Your task to perform on an android device: change the clock display to digital Image 0: 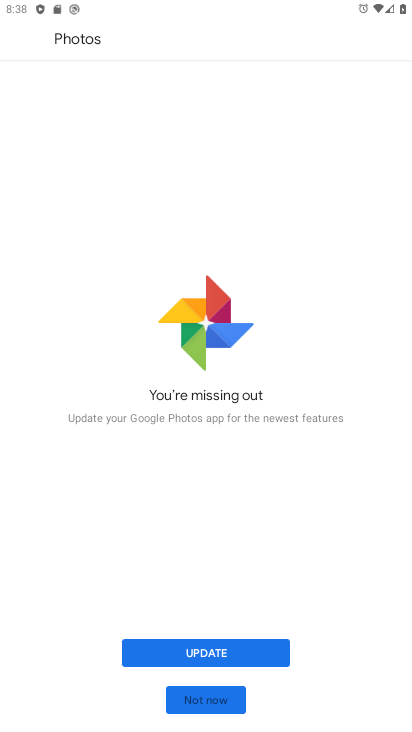
Step 0: press home button
Your task to perform on an android device: change the clock display to digital Image 1: 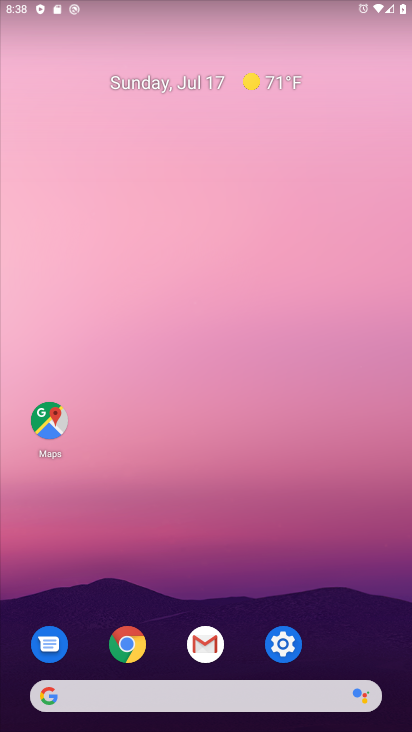
Step 1: click (281, 635)
Your task to perform on an android device: change the clock display to digital Image 2: 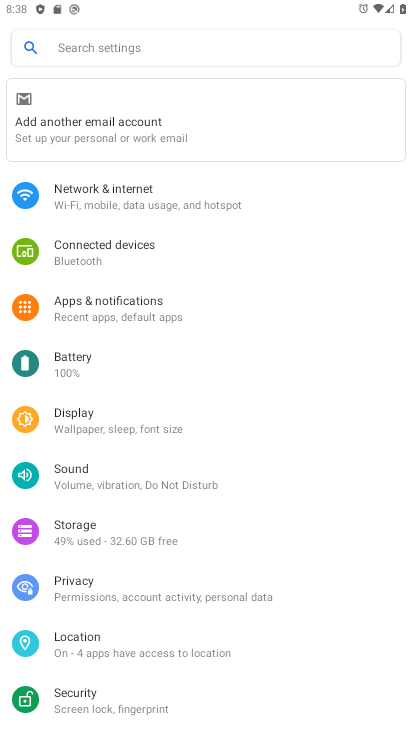
Step 2: click (95, 420)
Your task to perform on an android device: change the clock display to digital Image 3: 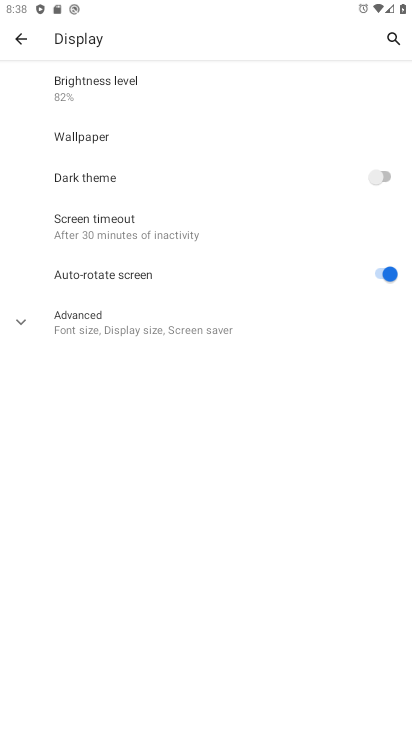
Step 3: task complete